Your task to perform on an android device: Go to Reddit.com Image 0: 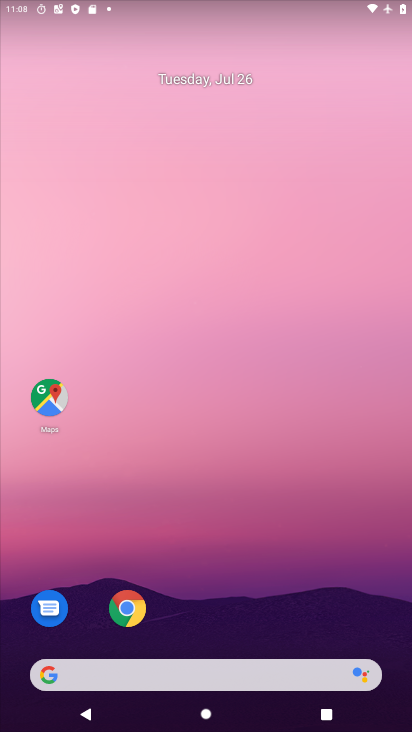
Step 0: click (135, 616)
Your task to perform on an android device: Go to Reddit.com Image 1: 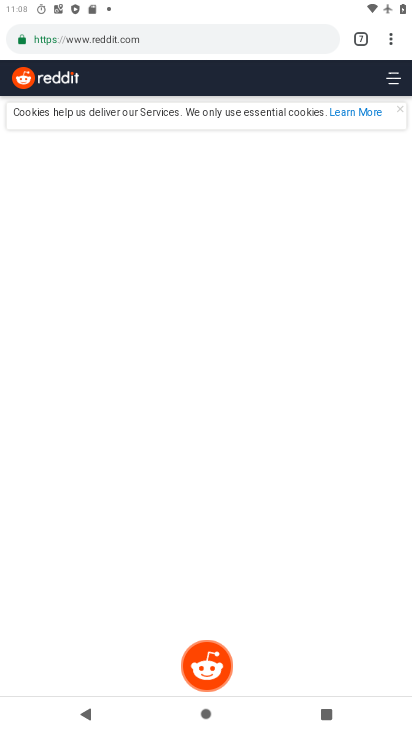
Step 1: task complete